Your task to perform on an android device: Show me popular games on the Play Store Image 0: 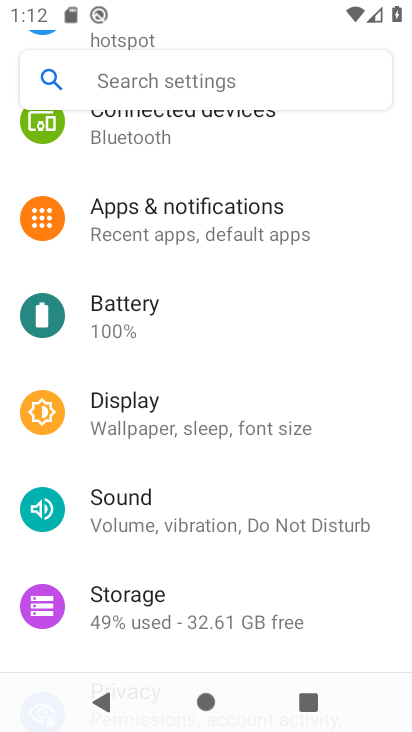
Step 0: drag from (276, 535) to (278, 185)
Your task to perform on an android device: Show me popular games on the Play Store Image 1: 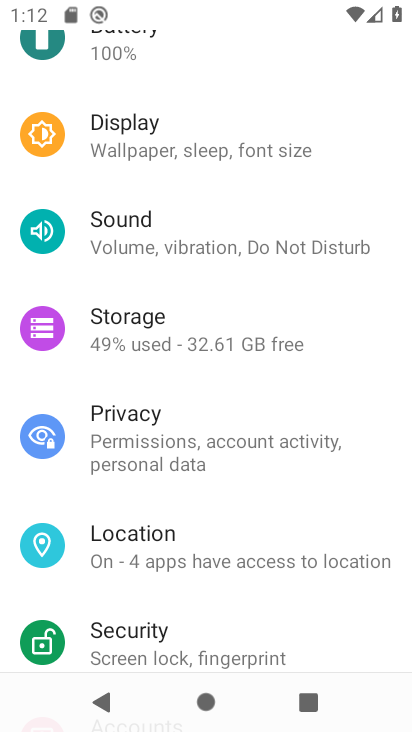
Step 1: press home button
Your task to perform on an android device: Show me popular games on the Play Store Image 2: 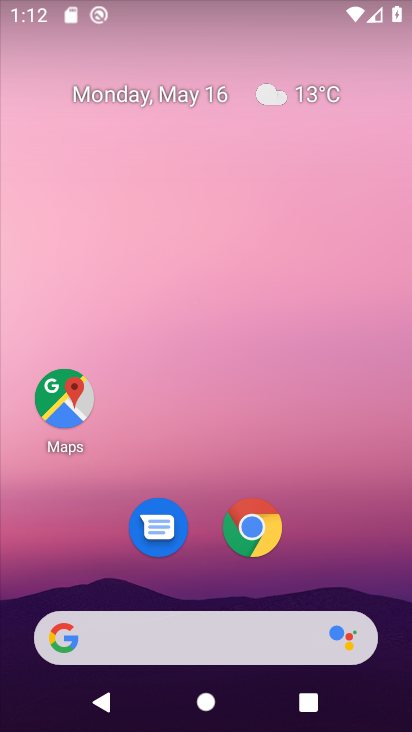
Step 2: drag from (297, 571) to (246, 145)
Your task to perform on an android device: Show me popular games on the Play Store Image 3: 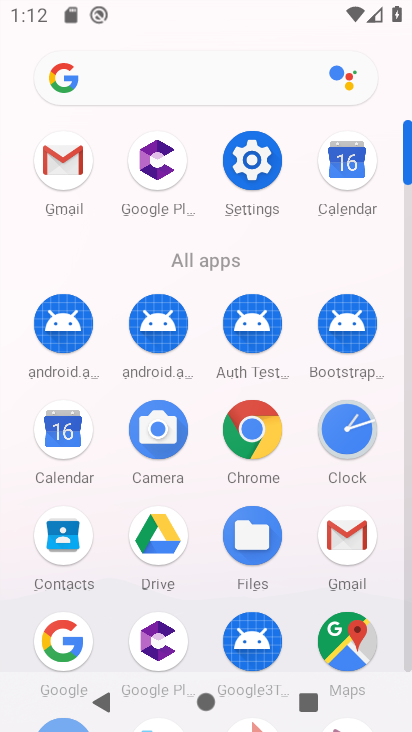
Step 3: drag from (310, 398) to (282, 67)
Your task to perform on an android device: Show me popular games on the Play Store Image 4: 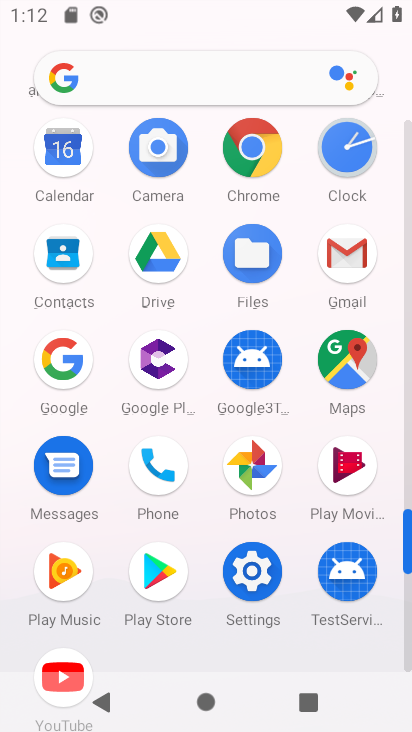
Step 4: click (162, 576)
Your task to perform on an android device: Show me popular games on the Play Store Image 5: 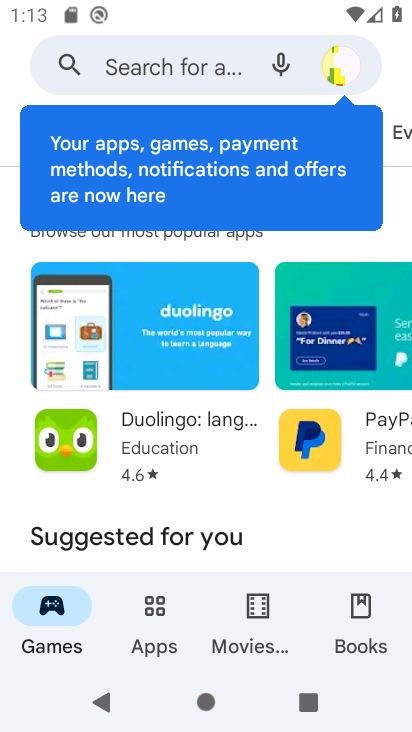
Step 5: click (125, 60)
Your task to perform on an android device: Show me popular games on the Play Store Image 6: 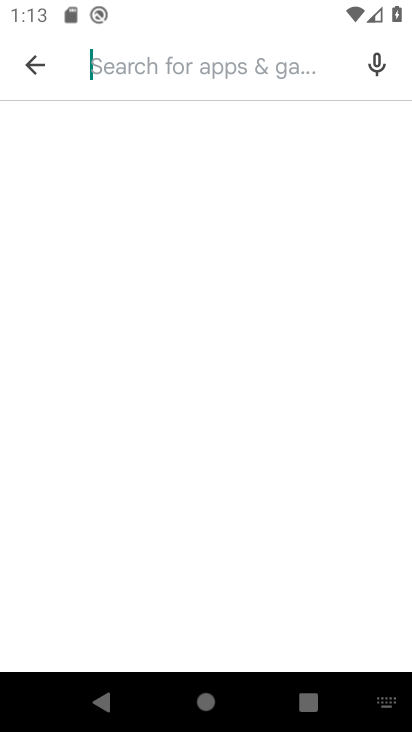
Step 6: click (119, 63)
Your task to perform on an android device: Show me popular games on the Play Store Image 7: 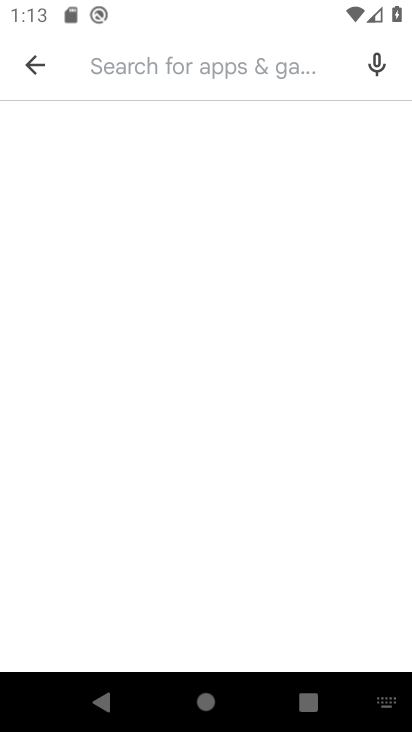
Step 7: type " popular game"
Your task to perform on an android device: Show me popular games on the Play Store Image 8: 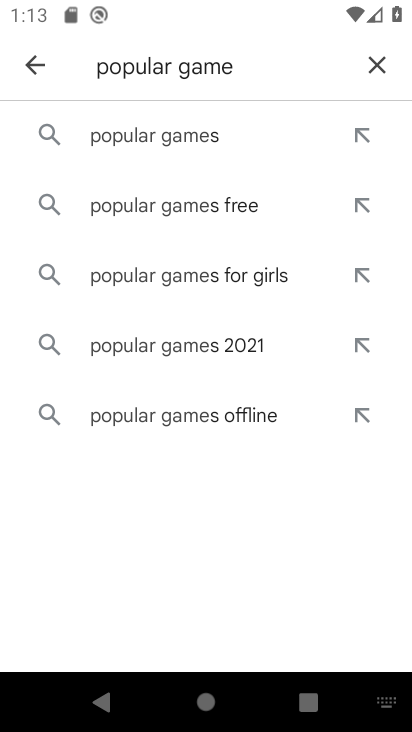
Step 8: click (160, 133)
Your task to perform on an android device: Show me popular games on the Play Store Image 9: 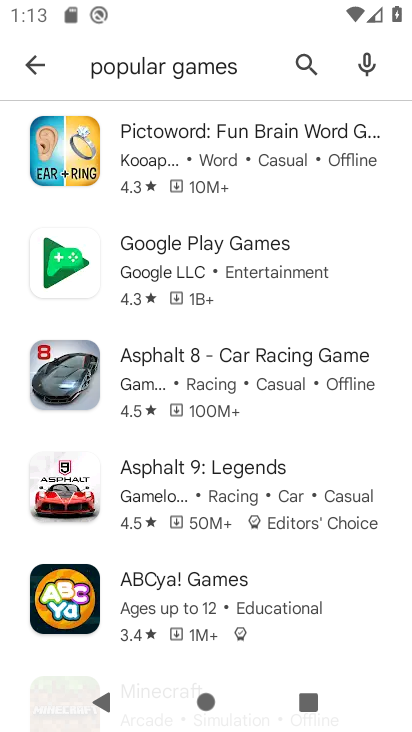
Step 9: task complete